Your task to perform on an android device: Open location settings Image 0: 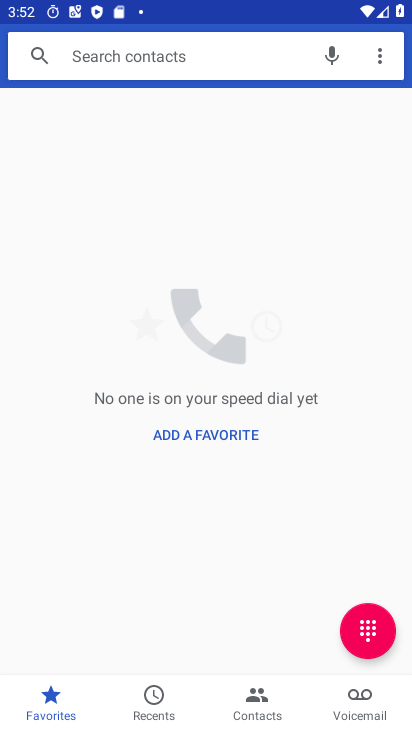
Step 0: press home button
Your task to perform on an android device: Open location settings Image 1: 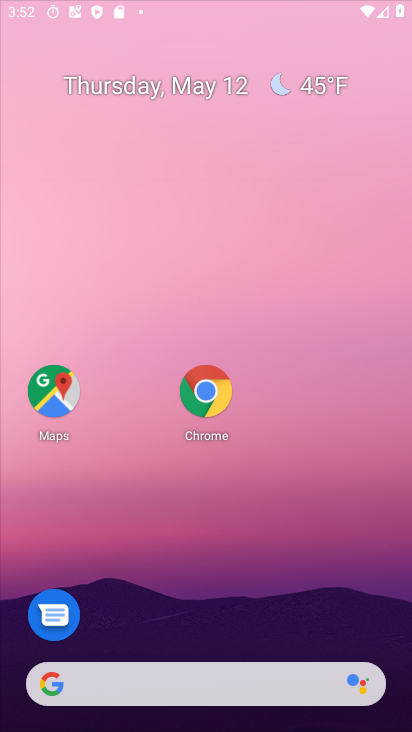
Step 1: press home button
Your task to perform on an android device: Open location settings Image 2: 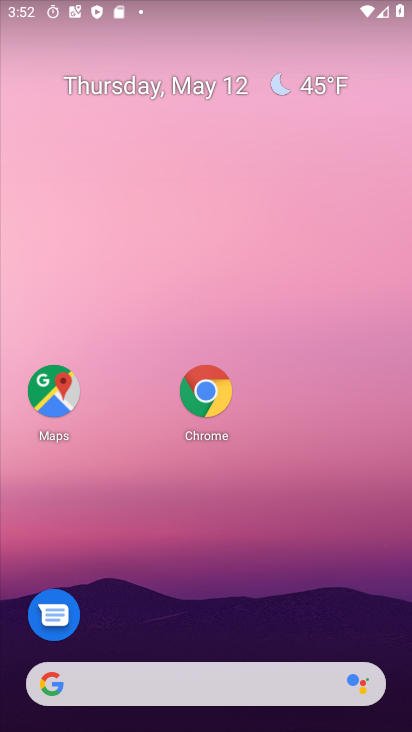
Step 2: drag from (197, 630) to (221, 101)
Your task to perform on an android device: Open location settings Image 3: 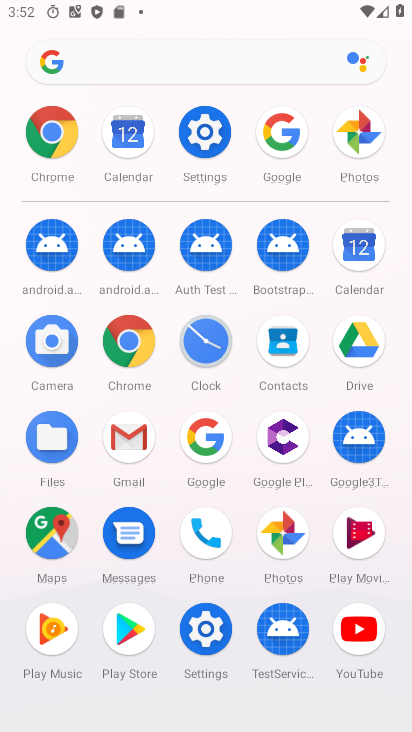
Step 3: click (203, 129)
Your task to perform on an android device: Open location settings Image 4: 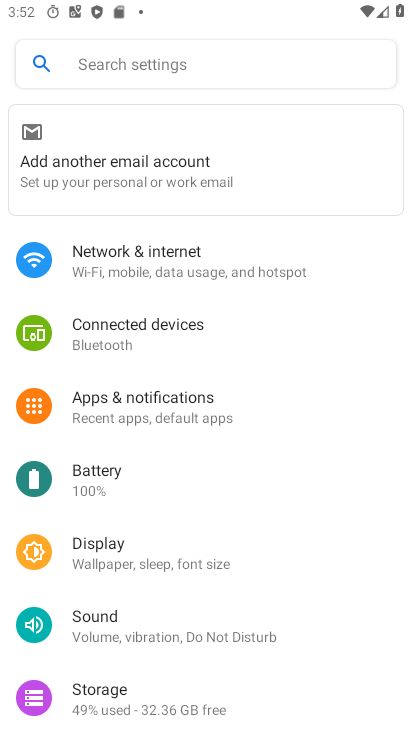
Step 4: drag from (207, 614) to (220, 195)
Your task to perform on an android device: Open location settings Image 5: 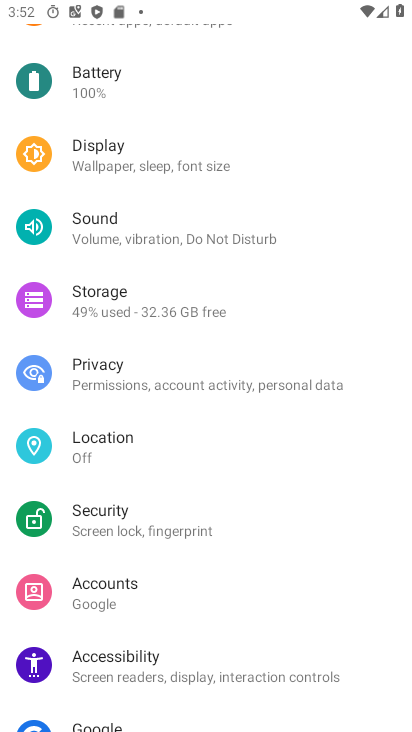
Step 5: click (136, 439)
Your task to perform on an android device: Open location settings Image 6: 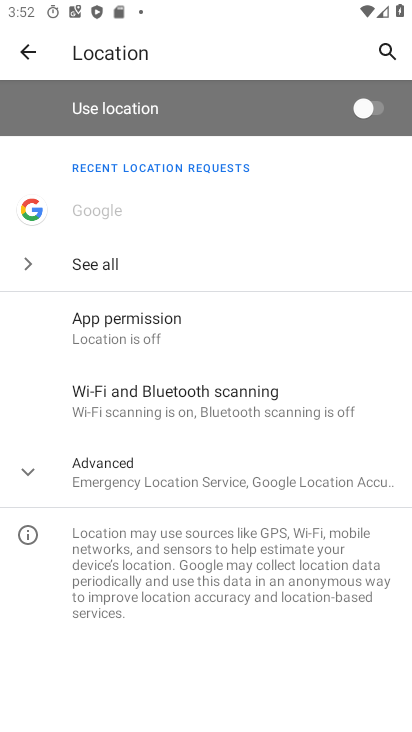
Step 6: task complete